Your task to perform on an android device: add a label to a message in the gmail app Image 0: 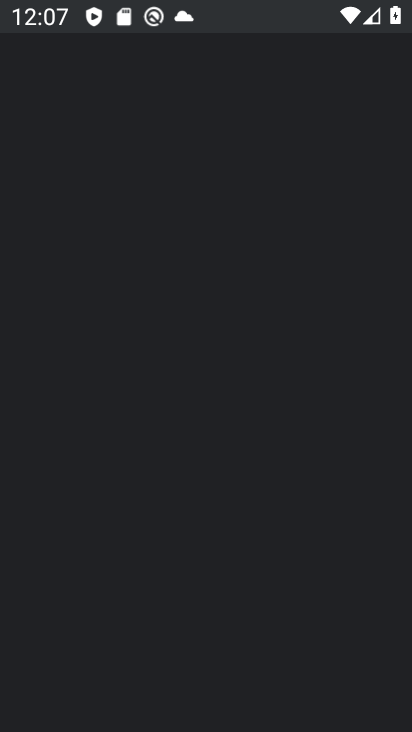
Step 0: drag from (187, 621) to (146, 218)
Your task to perform on an android device: add a label to a message in the gmail app Image 1: 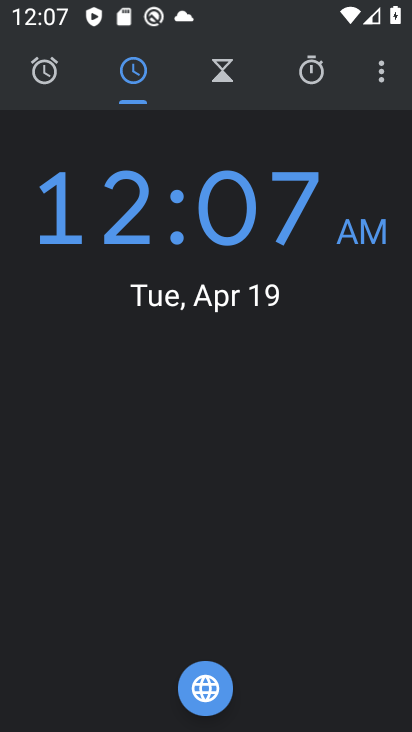
Step 1: press home button
Your task to perform on an android device: add a label to a message in the gmail app Image 2: 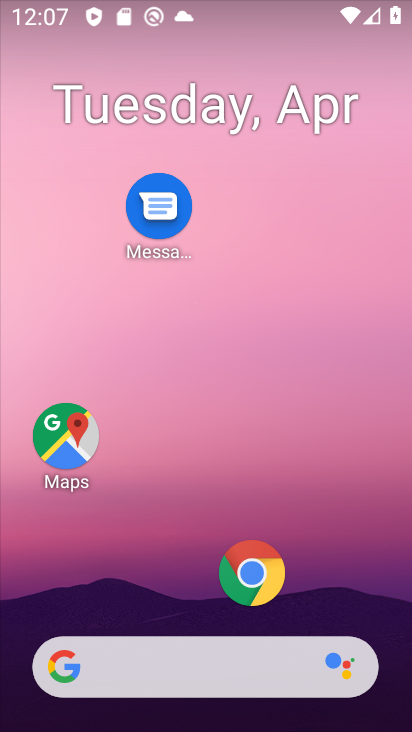
Step 2: drag from (203, 616) to (194, 34)
Your task to perform on an android device: add a label to a message in the gmail app Image 3: 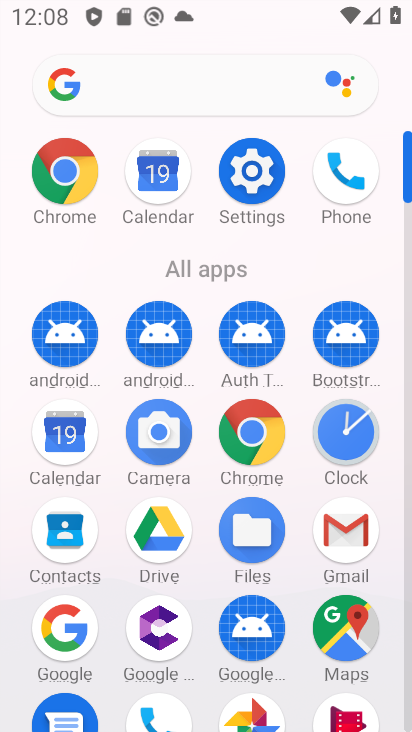
Step 3: click (351, 535)
Your task to perform on an android device: add a label to a message in the gmail app Image 4: 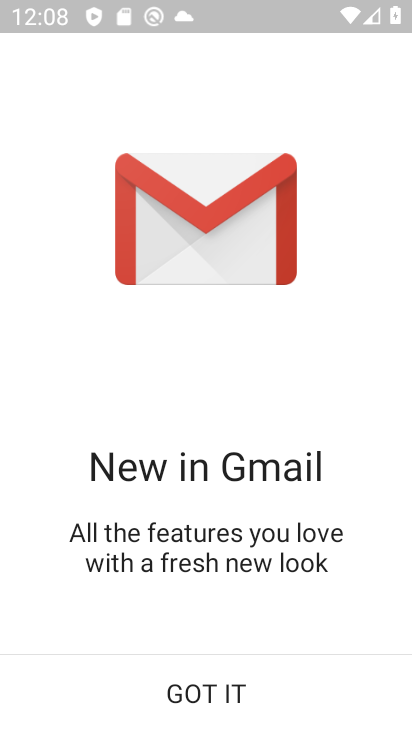
Step 4: click (222, 695)
Your task to perform on an android device: add a label to a message in the gmail app Image 5: 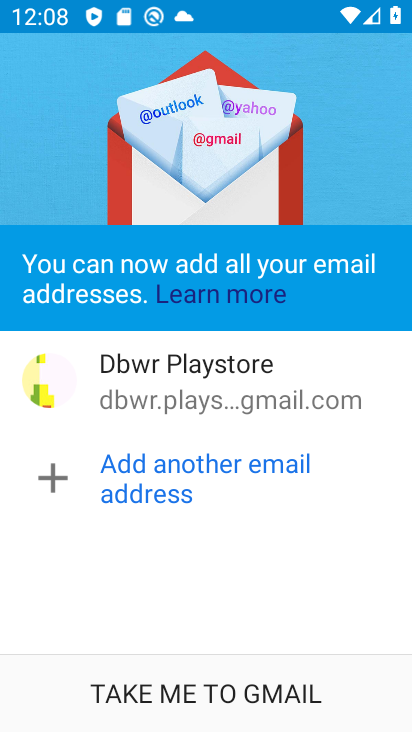
Step 5: click (222, 692)
Your task to perform on an android device: add a label to a message in the gmail app Image 6: 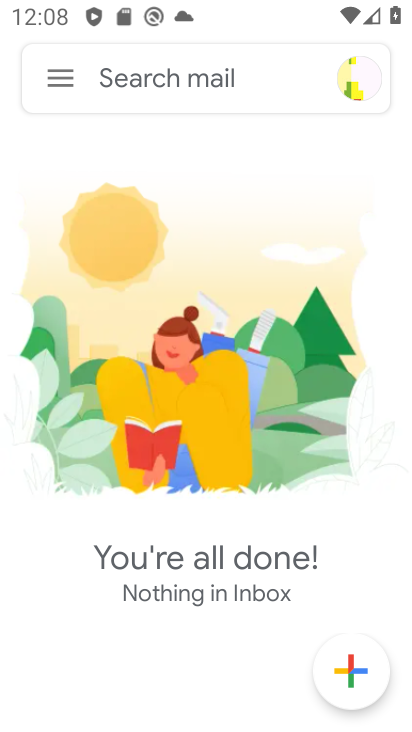
Step 6: click (51, 75)
Your task to perform on an android device: add a label to a message in the gmail app Image 7: 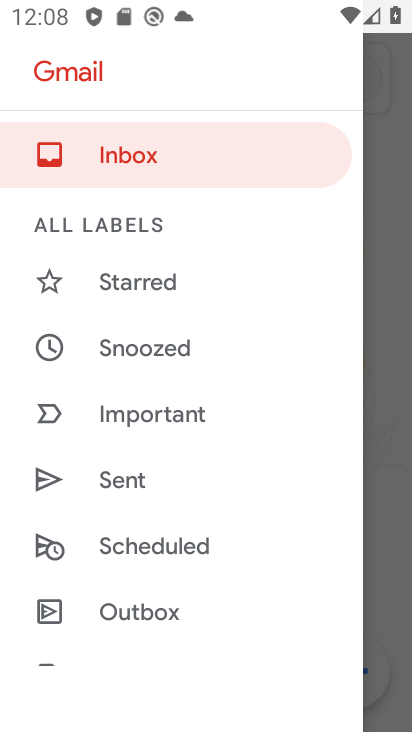
Step 7: drag from (202, 584) to (186, 328)
Your task to perform on an android device: add a label to a message in the gmail app Image 8: 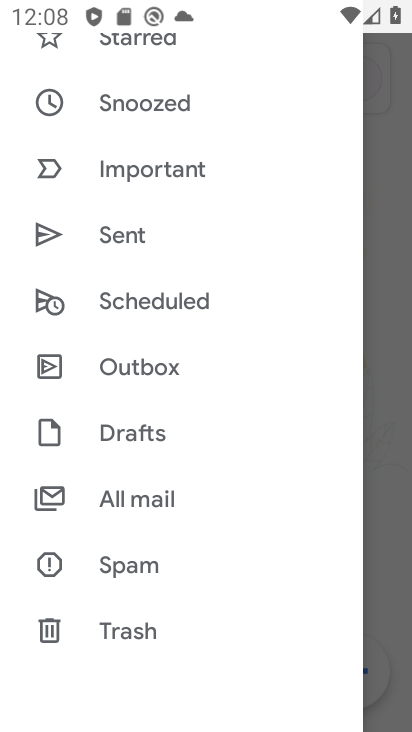
Step 8: drag from (145, 86) to (150, 474)
Your task to perform on an android device: add a label to a message in the gmail app Image 9: 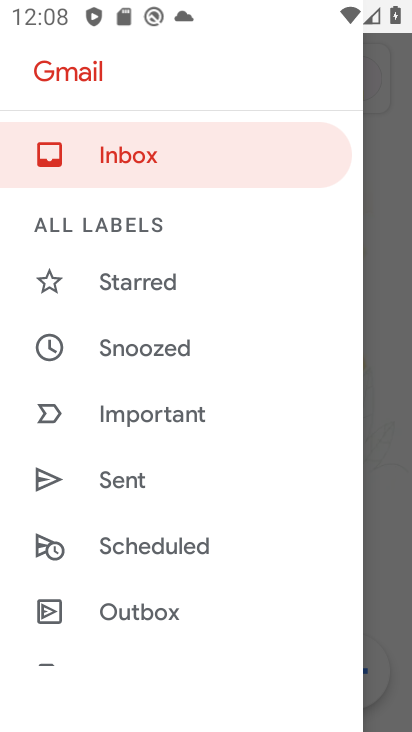
Step 9: click (143, 168)
Your task to perform on an android device: add a label to a message in the gmail app Image 10: 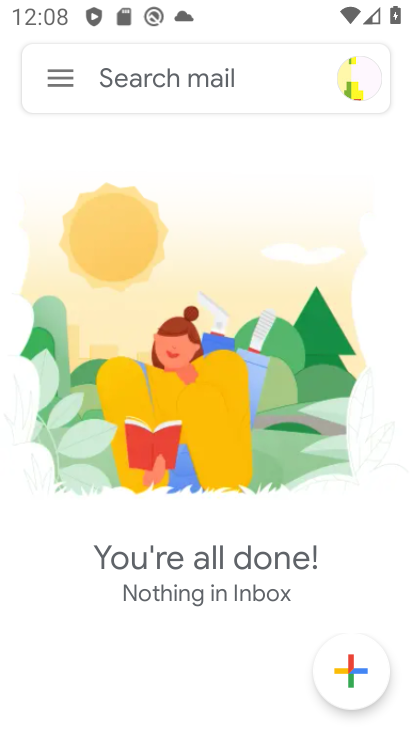
Step 10: task complete